Your task to perform on an android device: delete a single message in the gmail app Image 0: 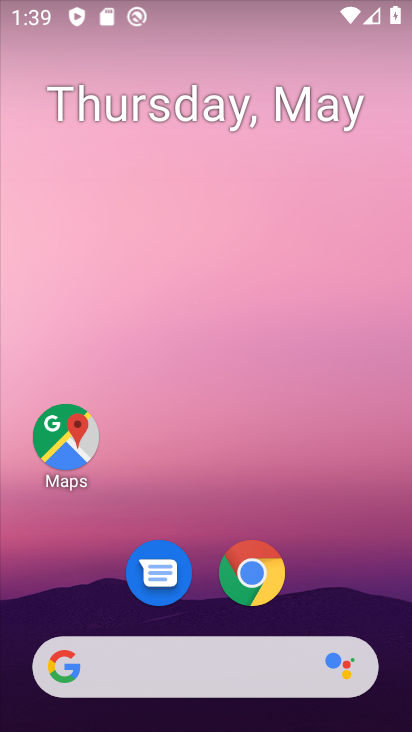
Step 0: drag from (376, 587) to (378, 10)
Your task to perform on an android device: delete a single message in the gmail app Image 1: 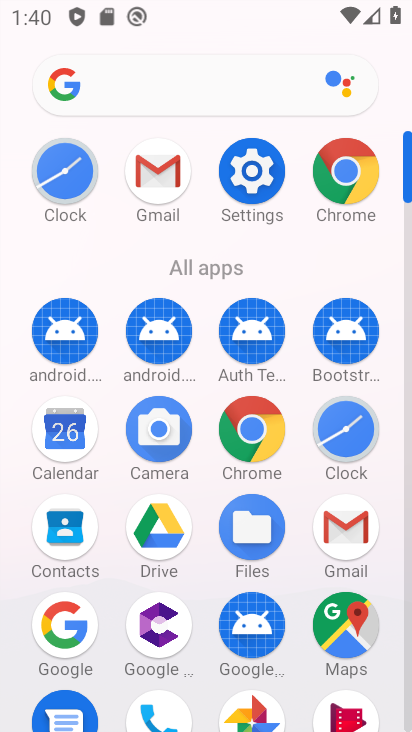
Step 1: click (154, 203)
Your task to perform on an android device: delete a single message in the gmail app Image 2: 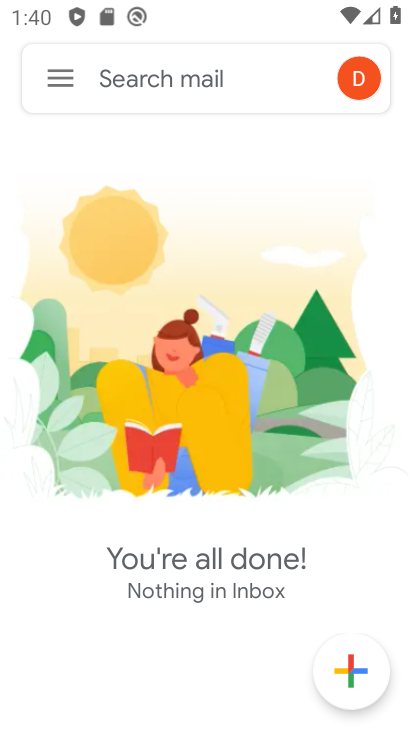
Step 2: task complete